Your task to perform on an android device: turn on data saver in the chrome app Image 0: 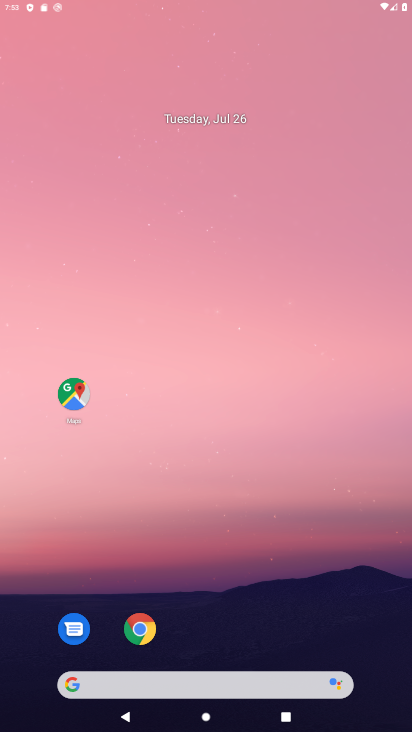
Step 0: press home button
Your task to perform on an android device: turn on data saver in the chrome app Image 1: 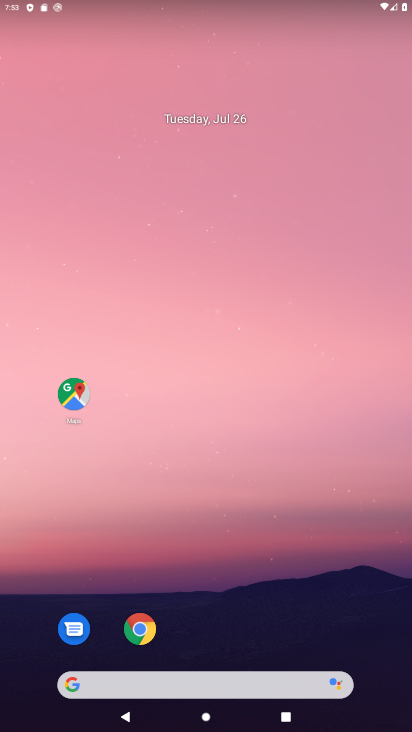
Step 1: click (136, 628)
Your task to perform on an android device: turn on data saver in the chrome app Image 2: 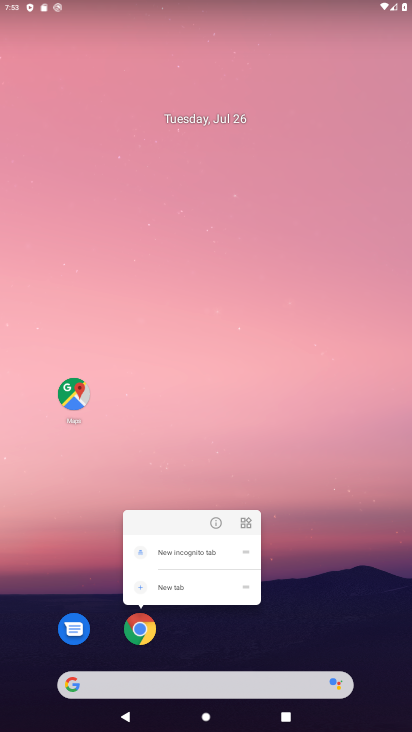
Step 2: click (320, 598)
Your task to perform on an android device: turn on data saver in the chrome app Image 3: 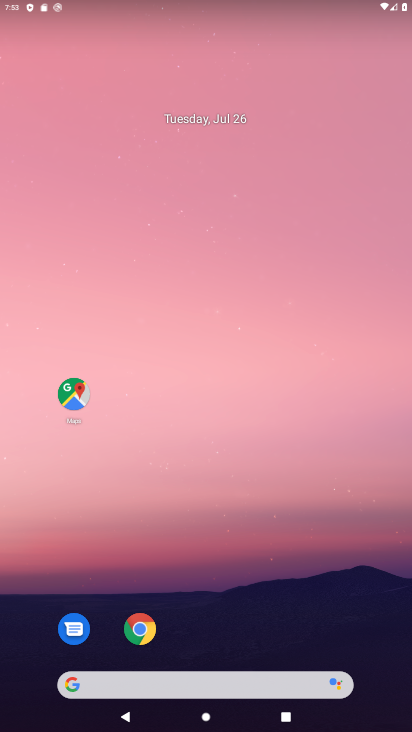
Step 3: click (139, 627)
Your task to perform on an android device: turn on data saver in the chrome app Image 4: 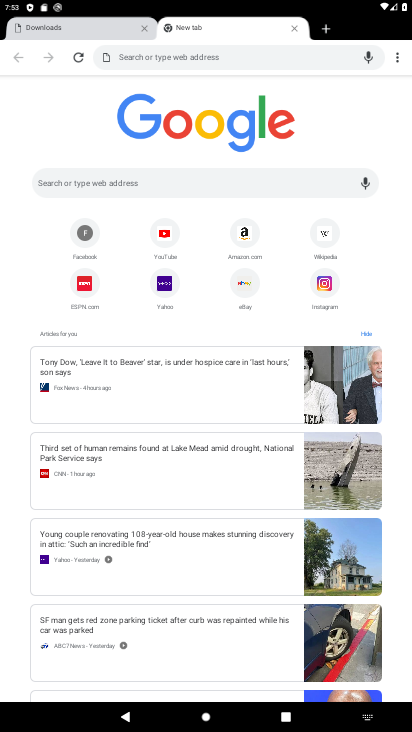
Step 4: click (398, 59)
Your task to perform on an android device: turn on data saver in the chrome app Image 5: 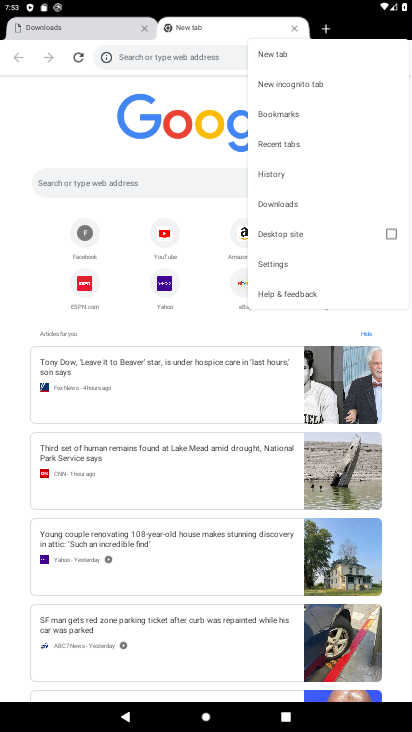
Step 5: click (292, 264)
Your task to perform on an android device: turn on data saver in the chrome app Image 6: 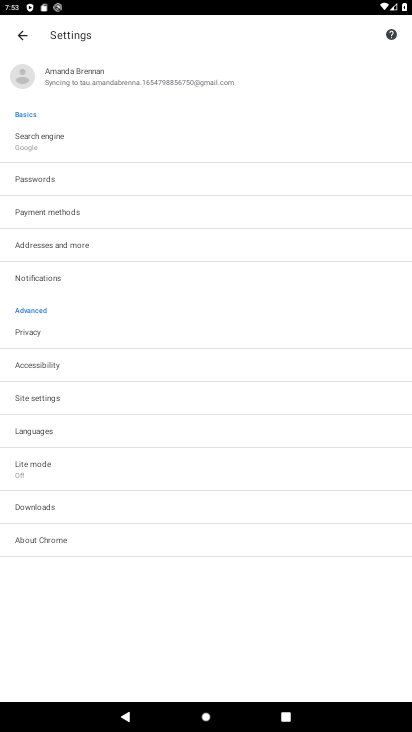
Step 6: click (66, 472)
Your task to perform on an android device: turn on data saver in the chrome app Image 7: 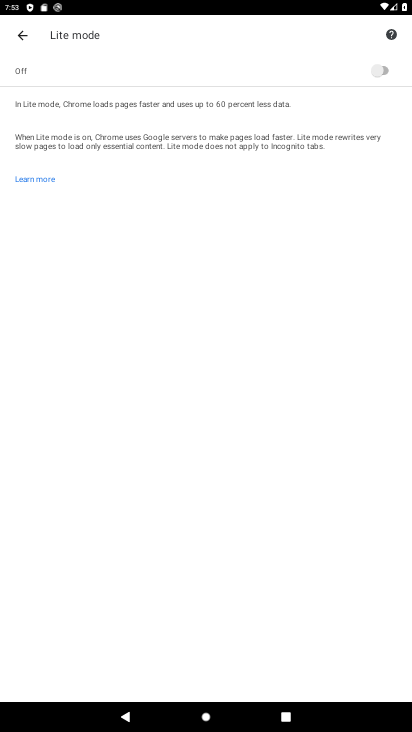
Step 7: click (384, 72)
Your task to perform on an android device: turn on data saver in the chrome app Image 8: 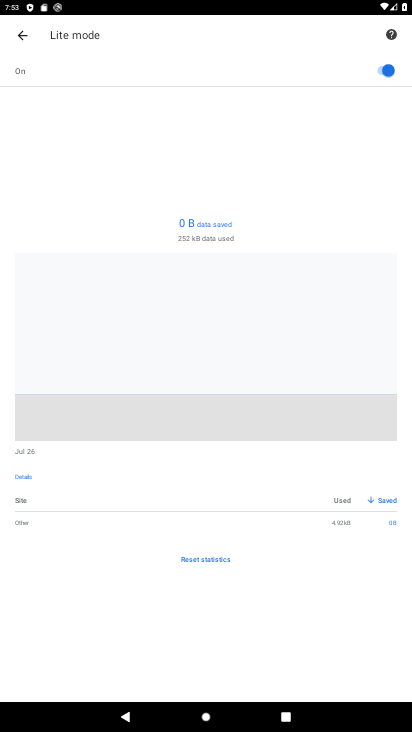
Step 8: task complete